Your task to perform on an android device: see tabs open on other devices in the chrome app Image 0: 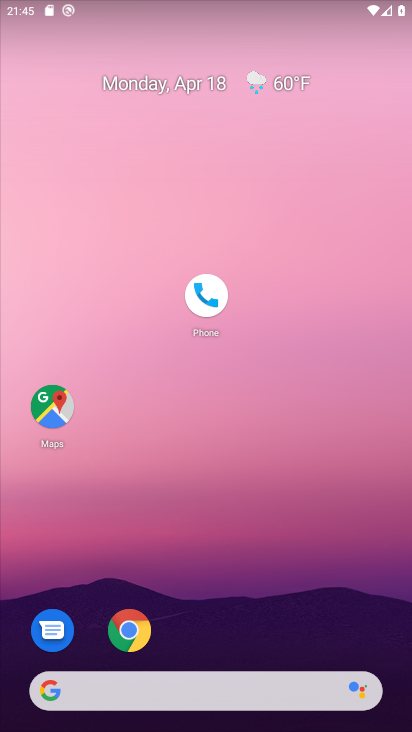
Step 0: click (132, 628)
Your task to perform on an android device: see tabs open on other devices in the chrome app Image 1: 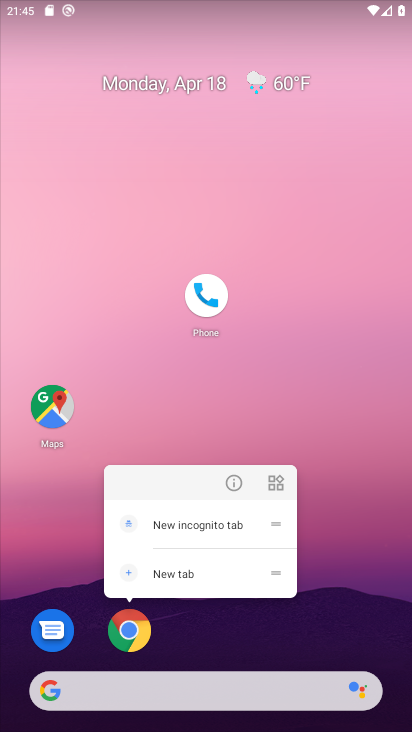
Step 1: click (379, 366)
Your task to perform on an android device: see tabs open on other devices in the chrome app Image 2: 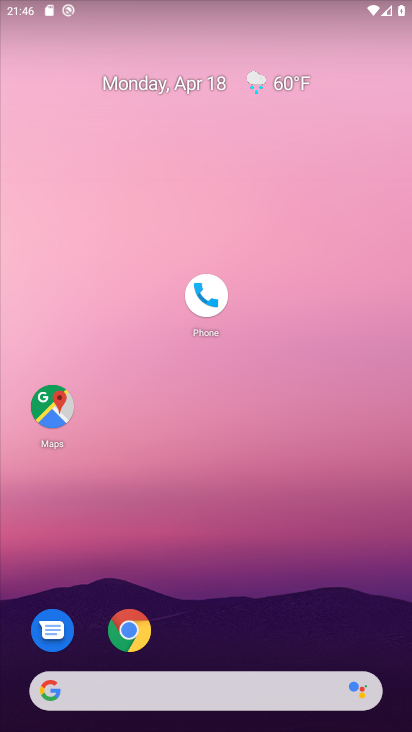
Step 2: drag from (220, 590) to (316, 67)
Your task to perform on an android device: see tabs open on other devices in the chrome app Image 3: 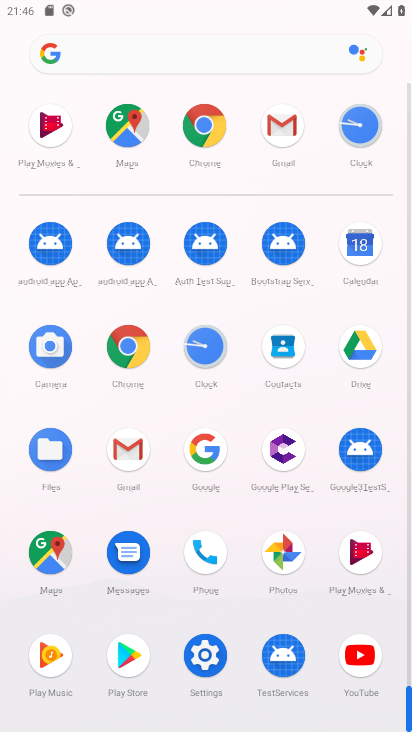
Step 3: click (126, 361)
Your task to perform on an android device: see tabs open on other devices in the chrome app Image 4: 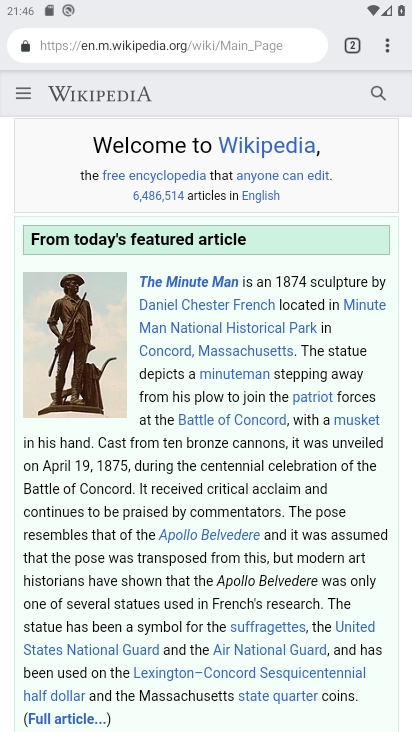
Step 4: click (384, 42)
Your task to perform on an android device: see tabs open on other devices in the chrome app Image 5: 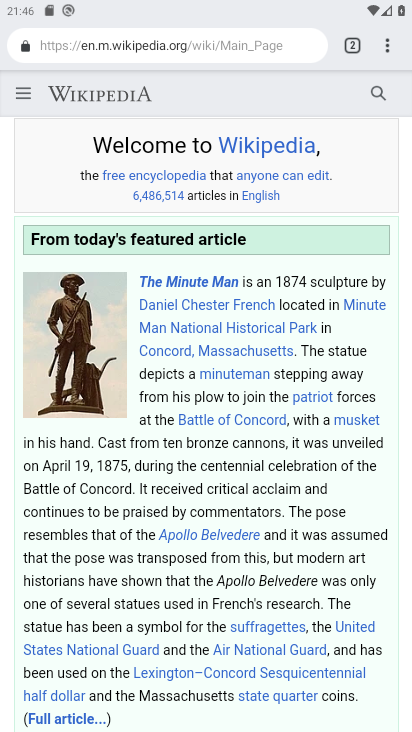
Step 5: task complete